Your task to perform on an android device: Go to Android settings Image 0: 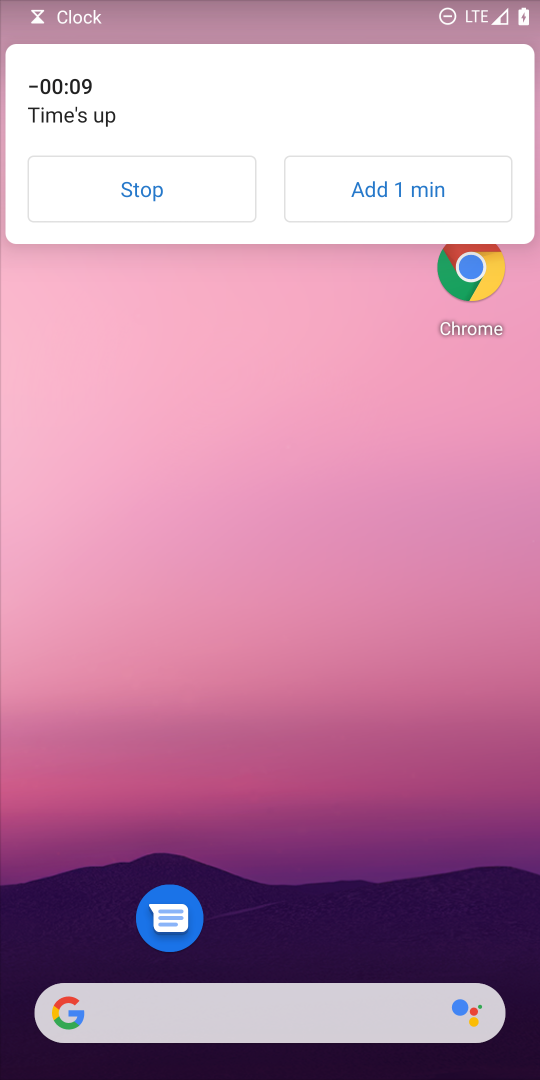
Step 0: press home button
Your task to perform on an android device: Go to Android settings Image 1: 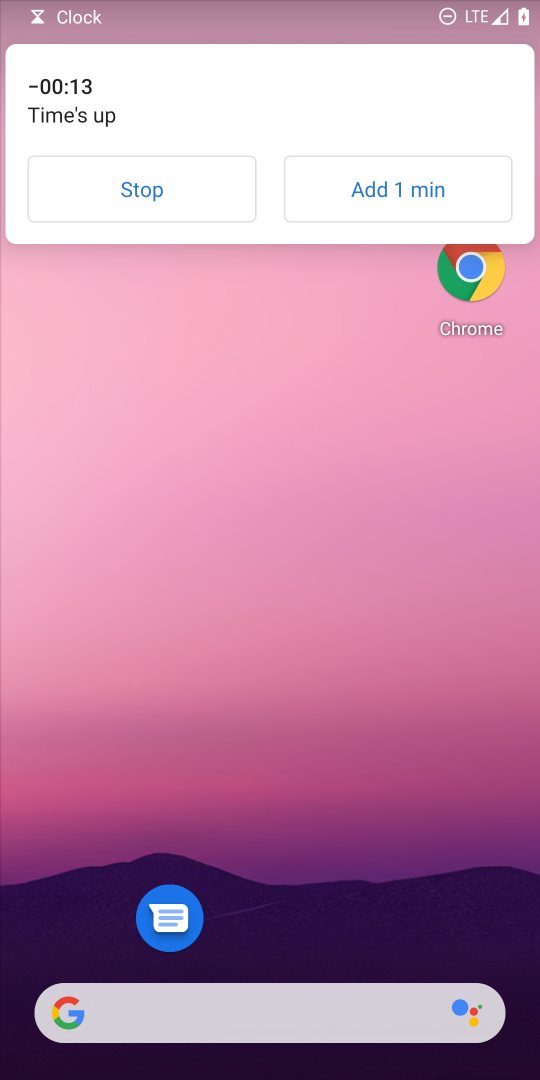
Step 1: click (186, 169)
Your task to perform on an android device: Go to Android settings Image 2: 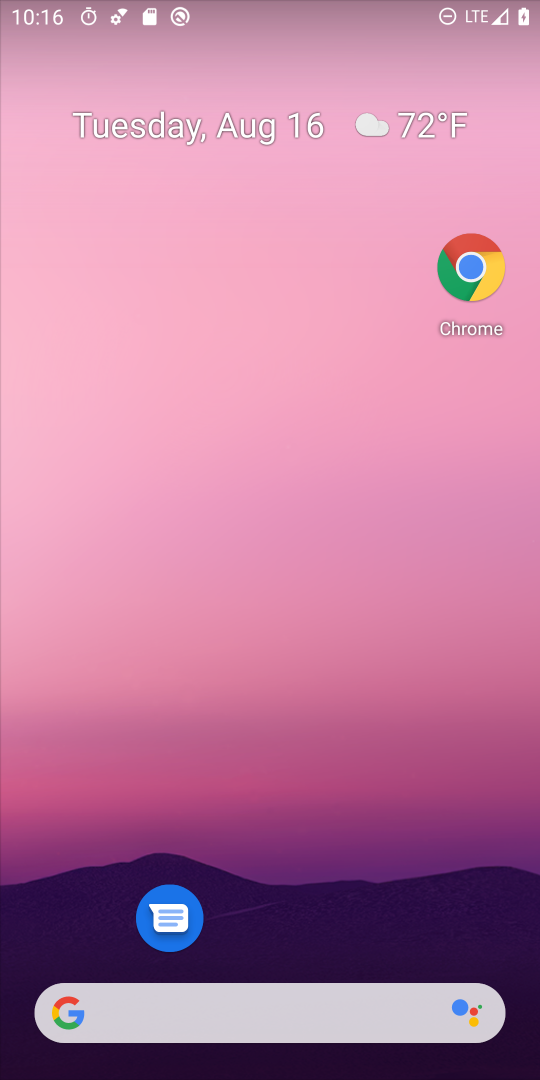
Step 2: drag from (341, 915) to (298, 119)
Your task to perform on an android device: Go to Android settings Image 3: 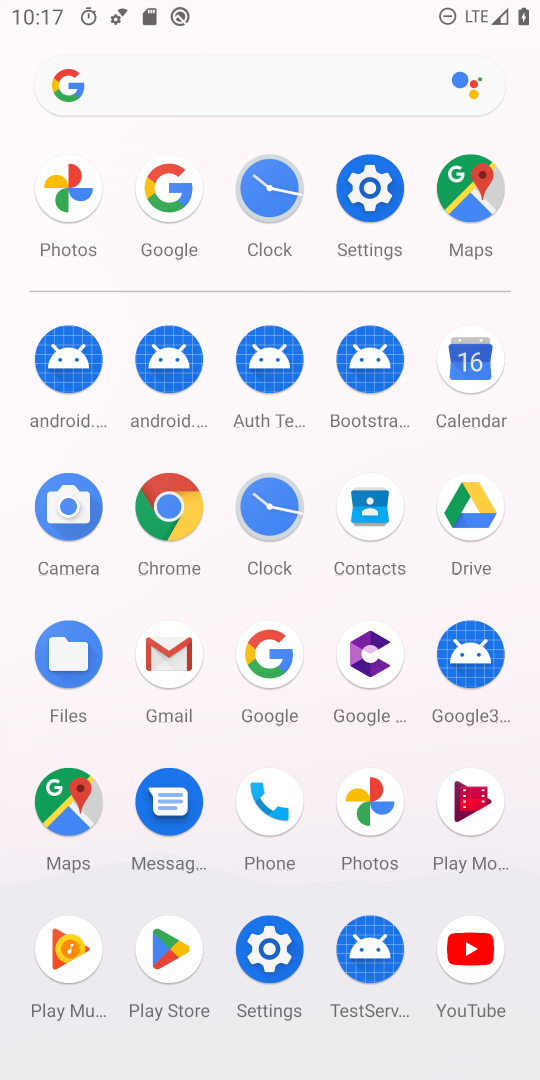
Step 3: click (378, 206)
Your task to perform on an android device: Go to Android settings Image 4: 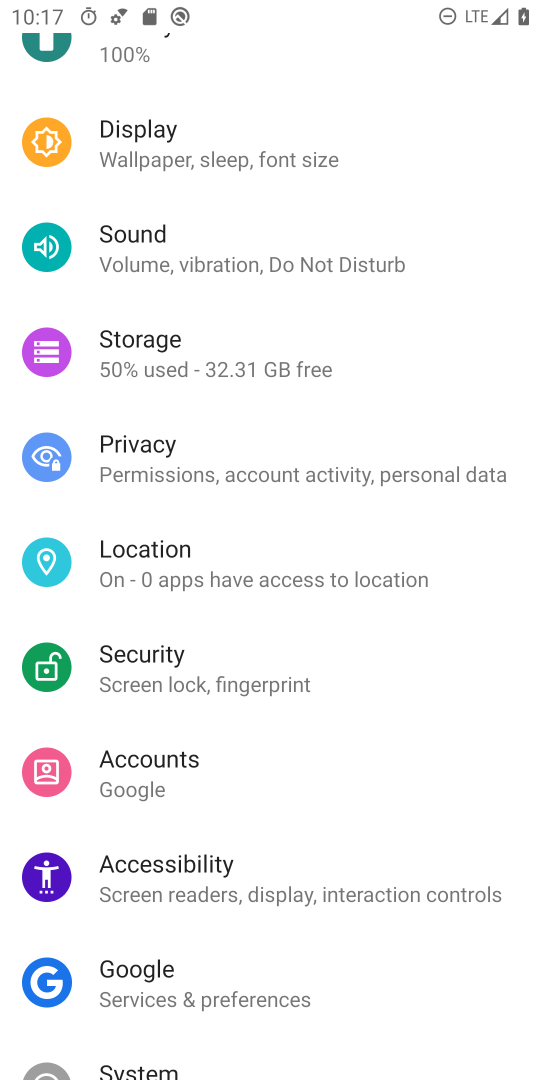
Step 4: drag from (319, 890) to (247, 76)
Your task to perform on an android device: Go to Android settings Image 5: 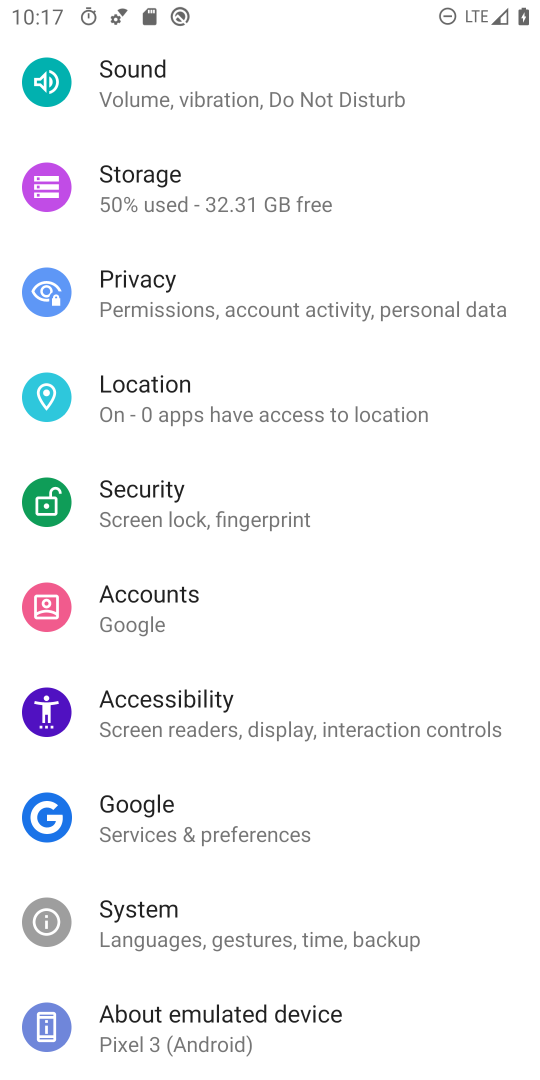
Step 5: click (256, 1039)
Your task to perform on an android device: Go to Android settings Image 6: 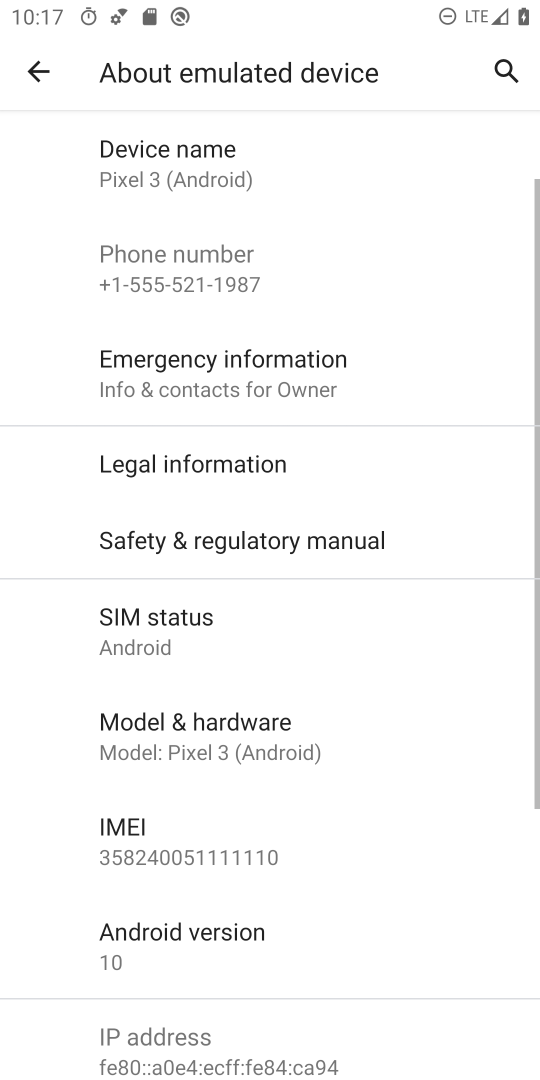
Step 6: click (212, 967)
Your task to perform on an android device: Go to Android settings Image 7: 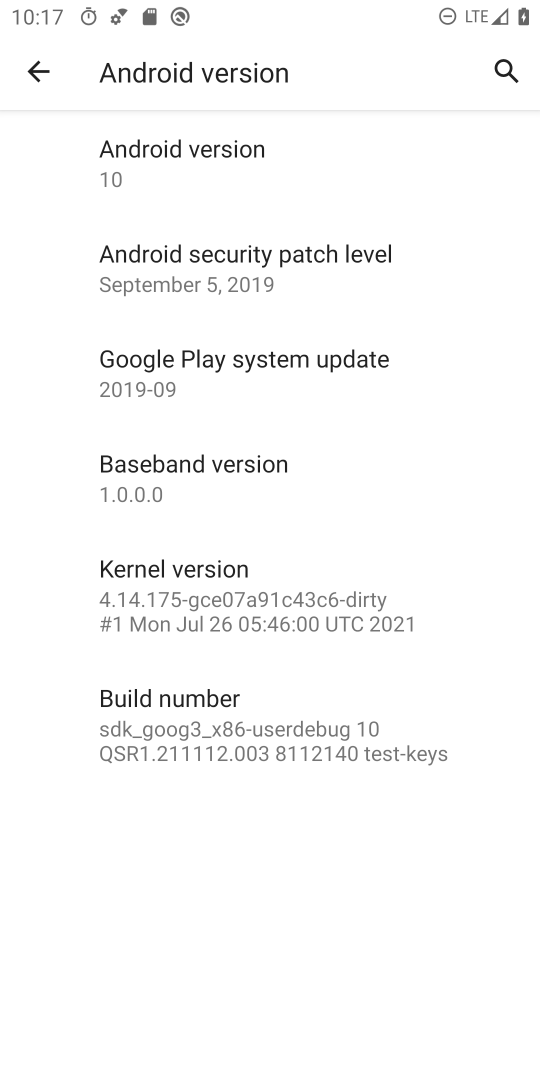
Step 7: click (174, 199)
Your task to perform on an android device: Go to Android settings Image 8: 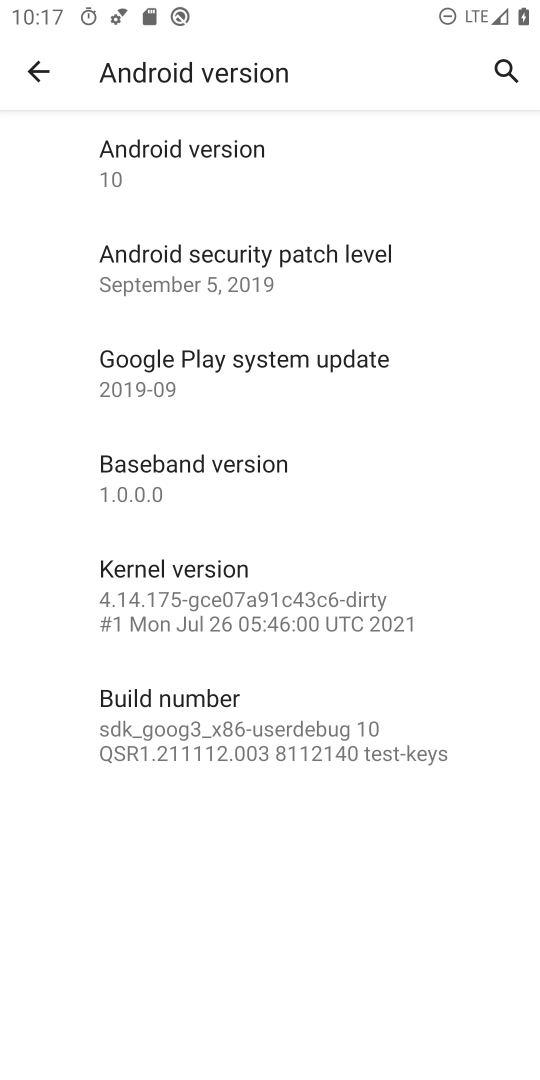
Step 8: task complete